Your task to perform on an android device: Is it going to rain today? Image 0: 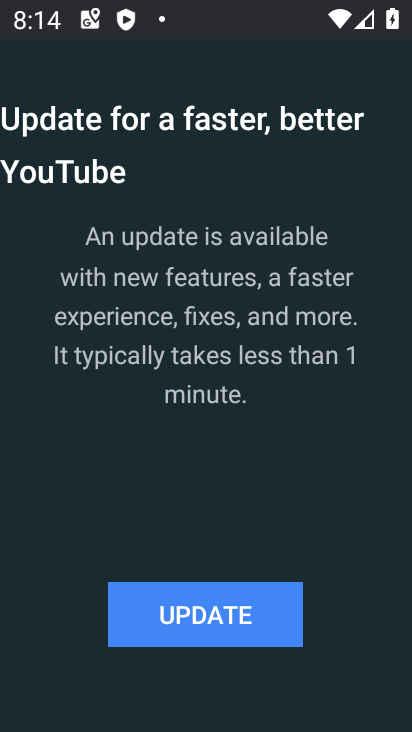
Step 0: press home button
Your task to perform on an android device: Is it going to rain today? Image 1: 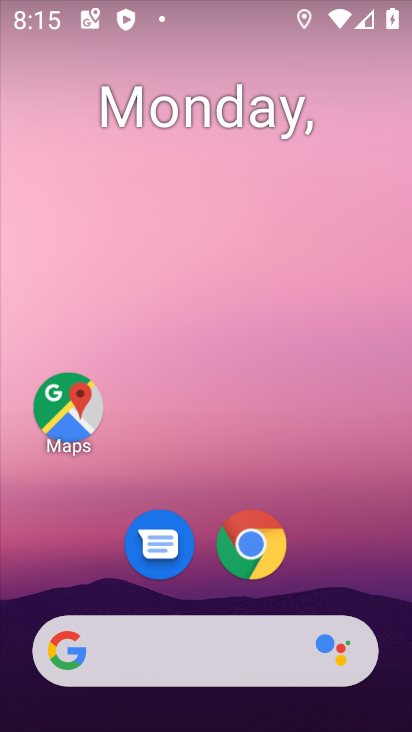
Step 1: click (234, 635)
Your task to perform on an android device: Is it going to rain today? Image 2: 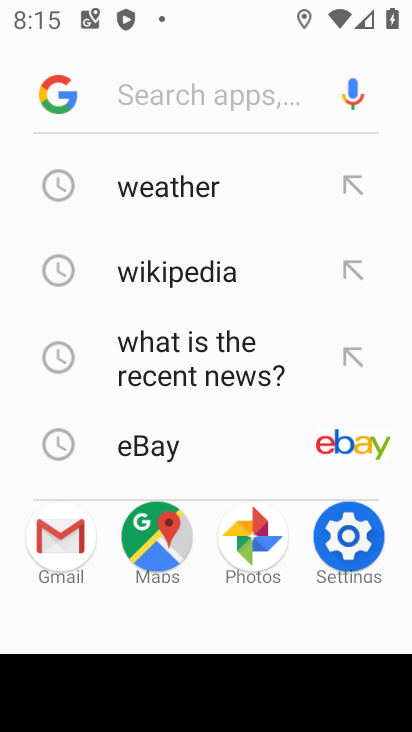
Step 2: click (171, 170)
Your task to perform on an android device: Is it going to rain today? Image 3: 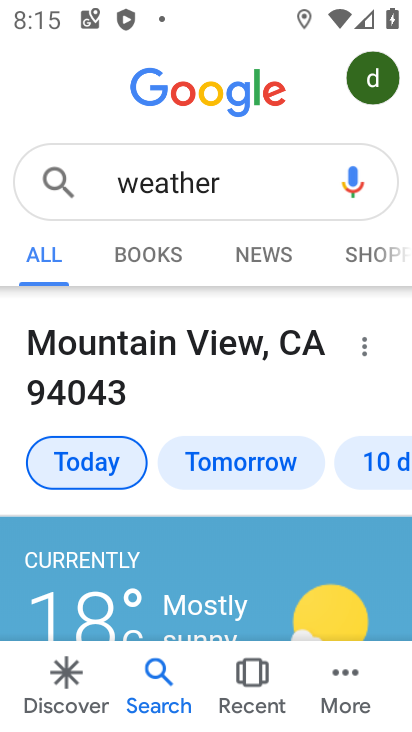
Step 3: click (107, 472)
Your task to perform on an android device: Is it going to rain today? Image 4: 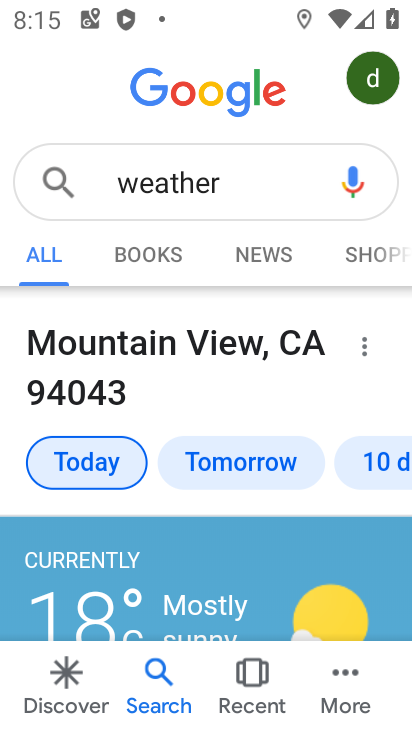
Step 4: task complete